Your task to perform on an android device: set the stopwatch Image 0: 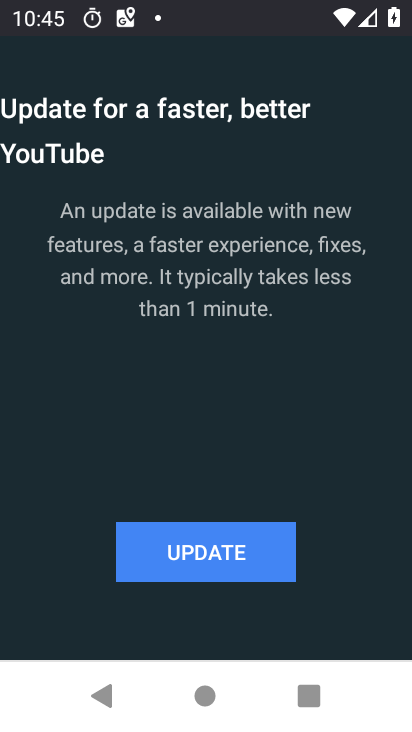
Step 0: press home button
Your task to perform on an android device: set the stopwatch Image 1: 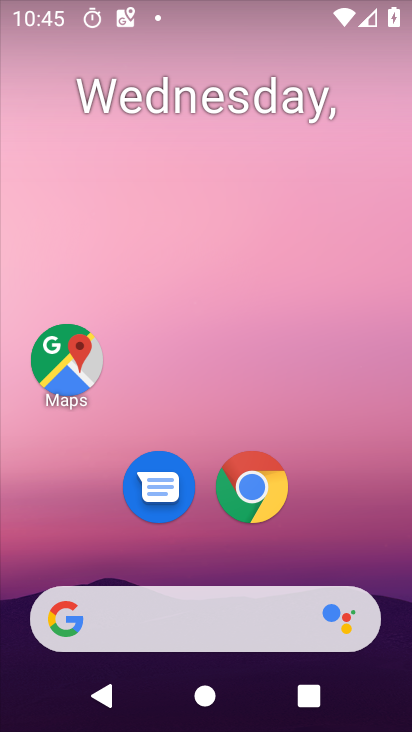
Step 1: drag from (226, 504) to (159, 66)
Your task to perform on an android device: set the stopwatch Image 2: 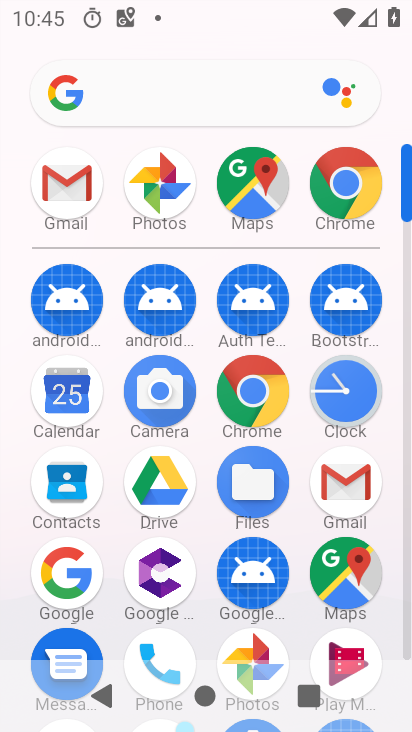
Step 2: click (329, 371)
Your task to perform on an android device: set the stopwatch Image 3: 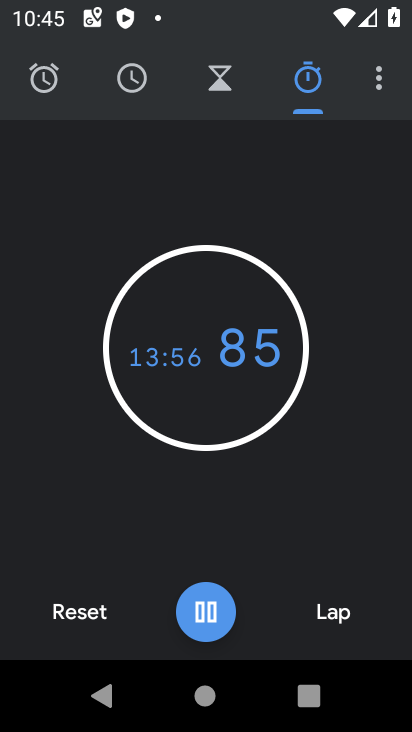
Step 3: task complete